Your task to perform on an android device: toggle show notifications on the lock screen Image 0: 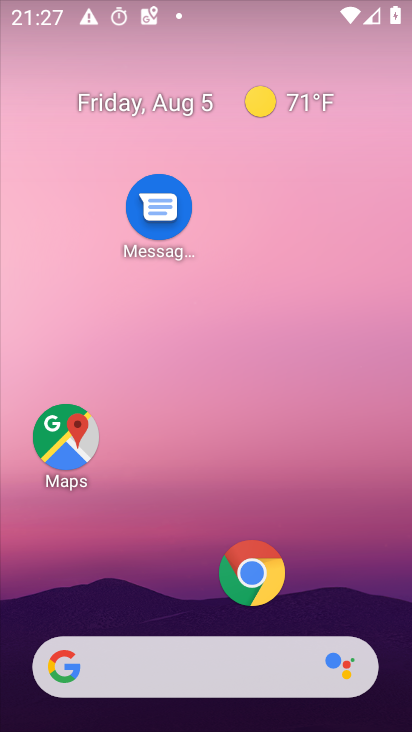
Step 0: click (225, 73)
Your task to perform on an android device: toggle show notifications on the lock screen Image 1: 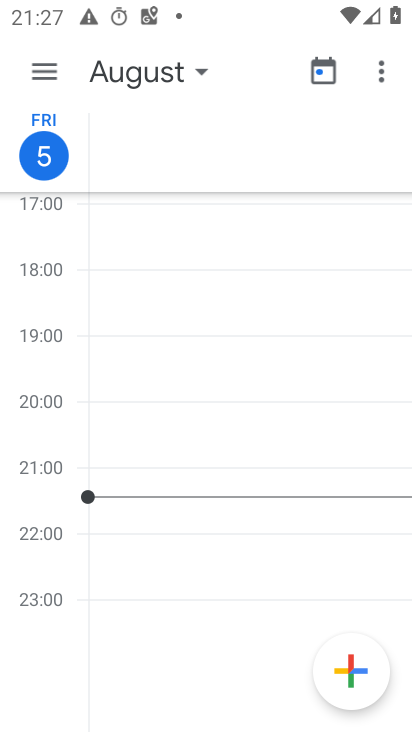
Step 1: press home button
Your task to perform on an android device: toggle show notifications on the lock screen Image 2: 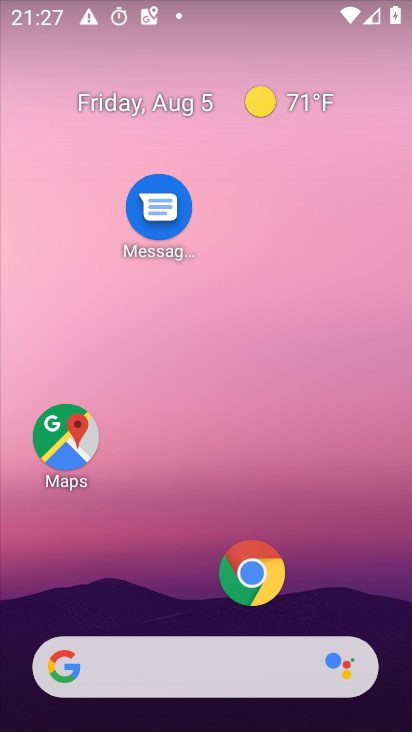
Step 2: drag from (192, 605) to (237, 127)
Your task to perform on an android device: toggle show notifications on the lock screen Image 3: 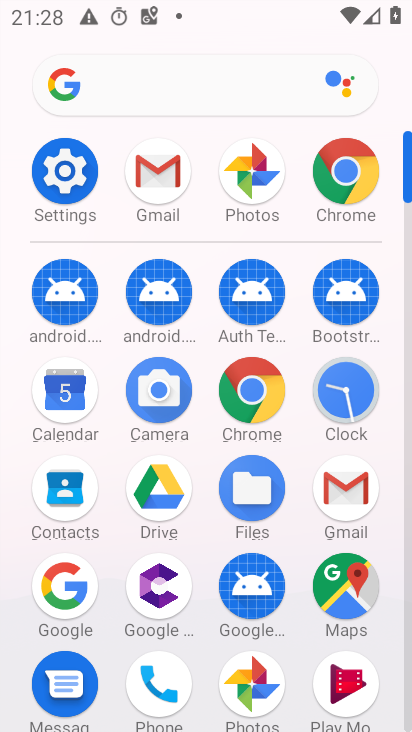
Step 3: click (71, 162)
Your task to perform on an android device: toggle show notifications on the lock screen Image 4: 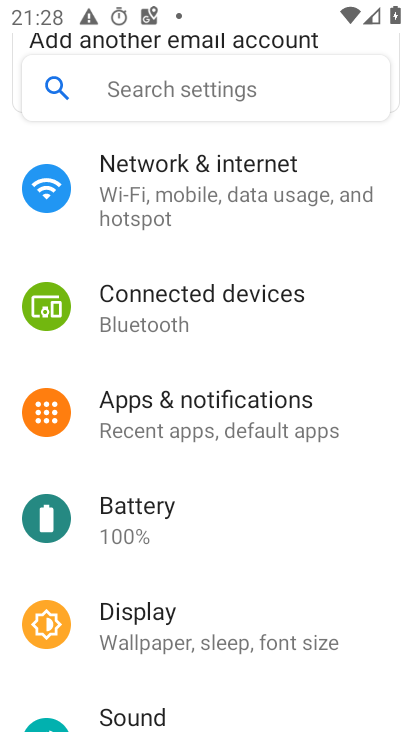
Step 4: click (229, 408)
Your task to perform on an android device: toggle show notifications on the lock screen Image 5: 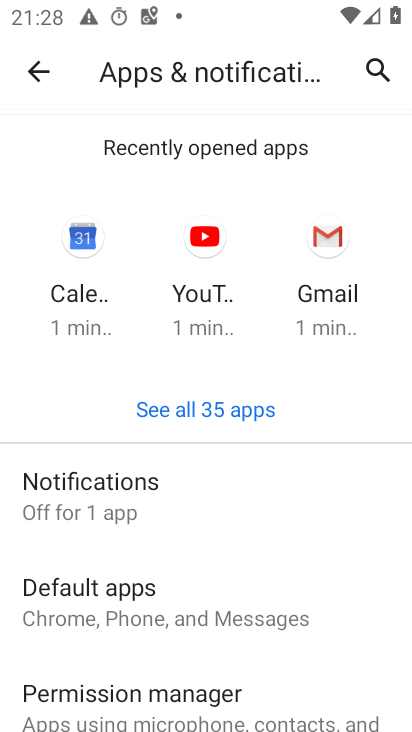
Step 5: click (186, 484)
Your task to perform on an android device: toggle show notifications on the lock screen Image 6: 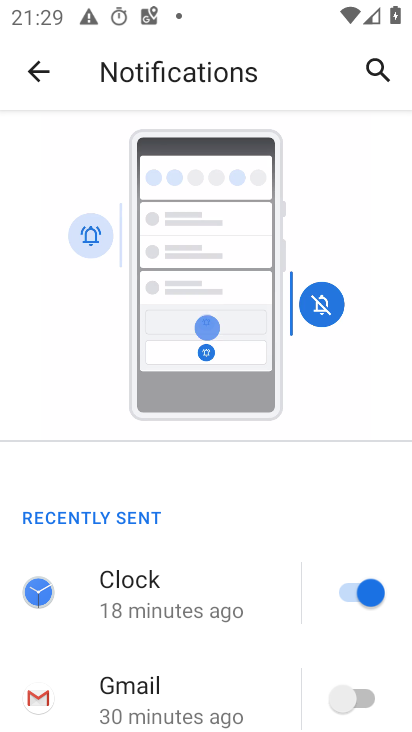
Step 6: drag from (221, 630) to (234, 168)
Your task to perform on an android device: toggle show notifications on the lock screen Image 7: 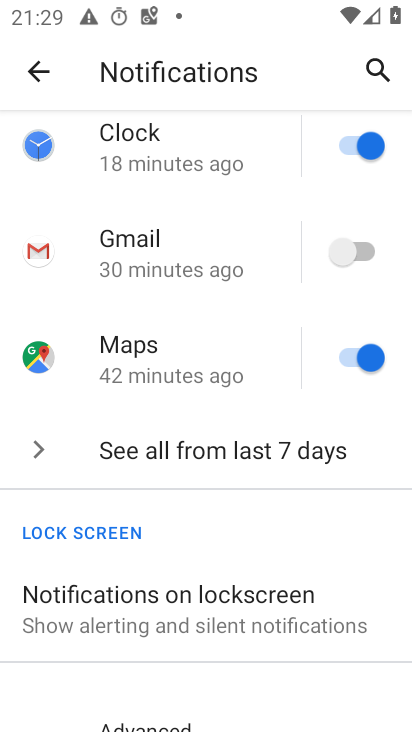
Step 7: click (275, 619)
Your task to perform on an android device: toggle show notifications on the lock screen Image 8: 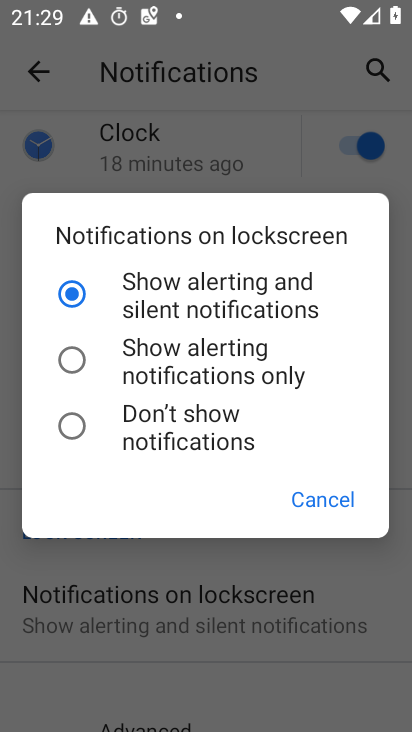
Step 8: click (75, 353)
Your task to perform on an android device: toggle show notifications on the lock screen Image 9: 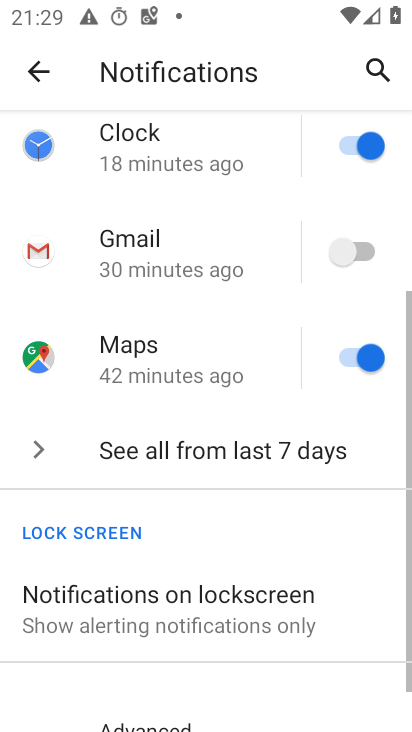
Step 9: task complete